Your task to perform on an android device: change notification settings in the gmail app Image 0: 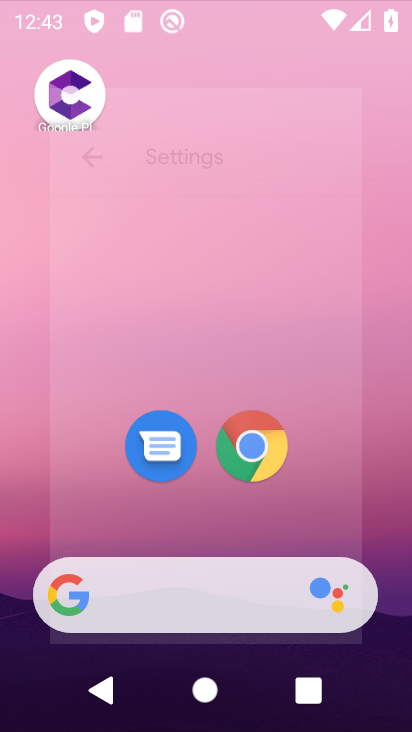
Step 0: drag from (265, 550) to (271, 101)
Your task to perform on an android device: change notification settings in the gmail app Image 1: 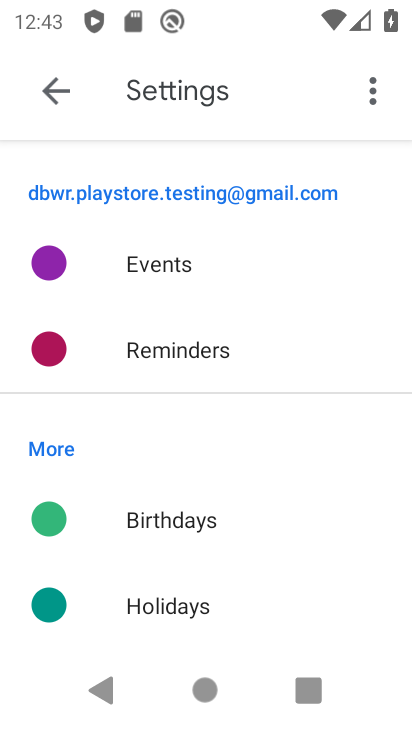
Step 1: press home button
Your task to perform on an android device: change notification settings in the gmail app Image 2: 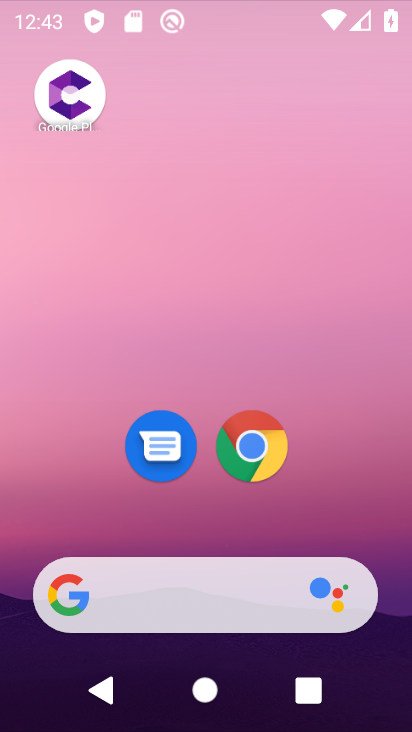
Step 2: drag from (230, 622) to (200, 77)
Your task to perform on an android device: change notification settings in the gmail app Image 3: 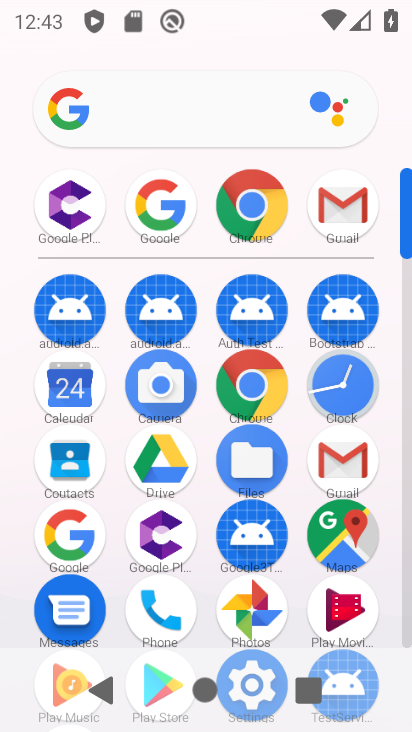
Step 3: click (346, 464)
Your task to perform on an android device: change notification settings in the gmail app Image 4: 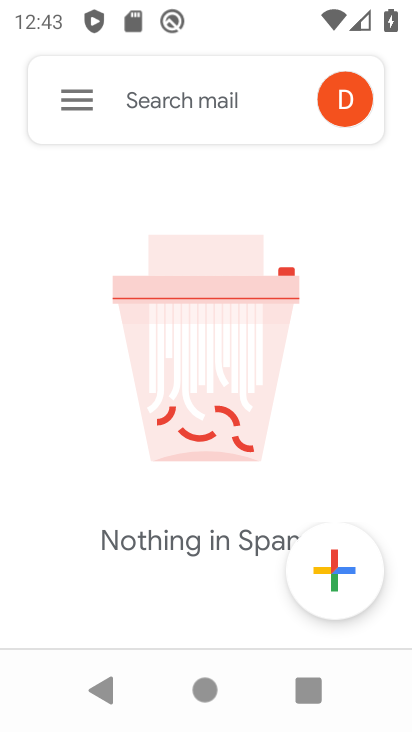
Step 4: click (74, 101)
Your task to perform on an android device: change notification settings in the gmail app Image 5: 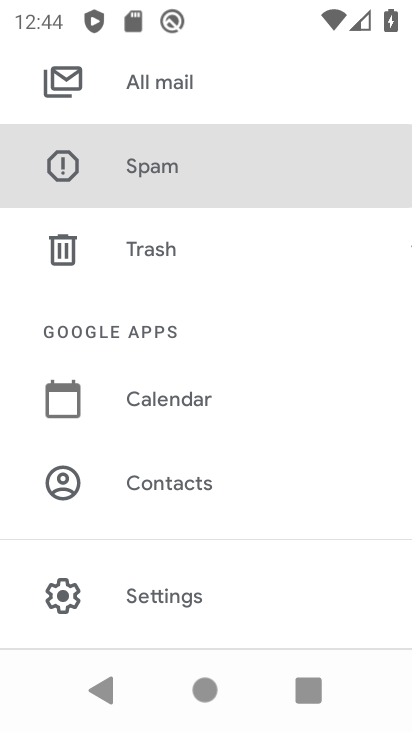
Step 5: drag from (164, 537) to (154, 200)
Your task to perform on an android device: change notification settings in the gmail app Image 6: 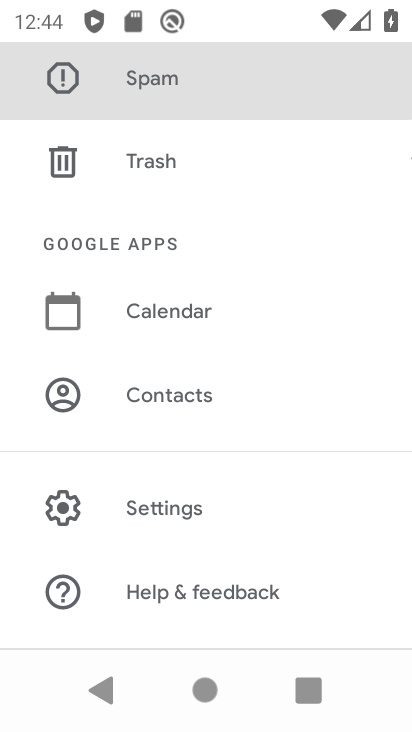
Step 6: click (128, 506)
Your task to perform on an android device: change notification settings in the gmail app Image 7: 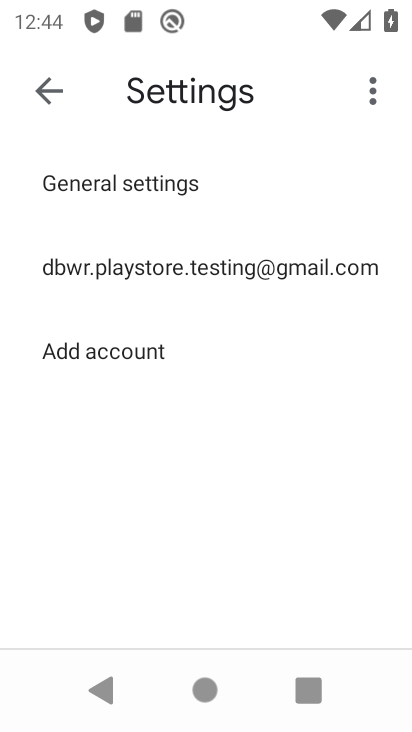
Step 7: click (164, 175)
Your task to perform on an android device: change notification settings in the gmail app Image 8: 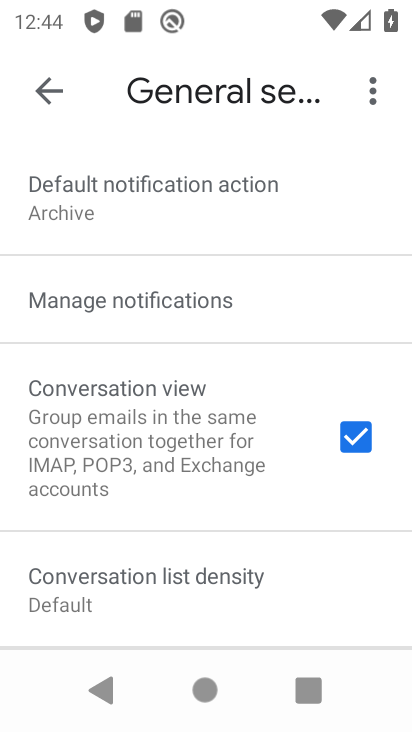
Step 8: click (163, 299)
Your task to perform on an android device: change notification settings in the gmail app Image 9: 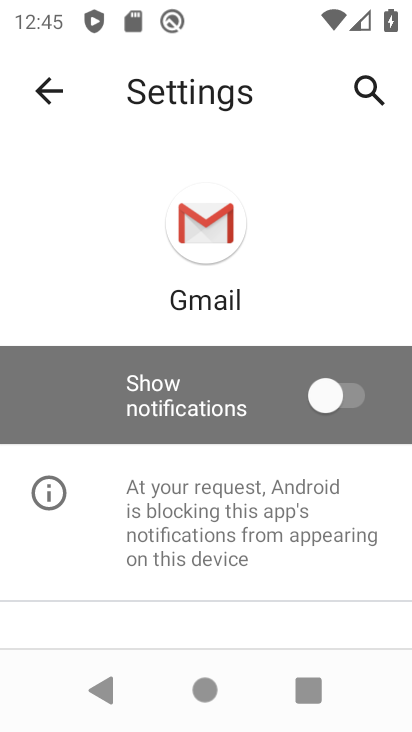
Step 9: click (256, 440)
Your task to perform on an android device: change notification settings in the gmail app Image 10: 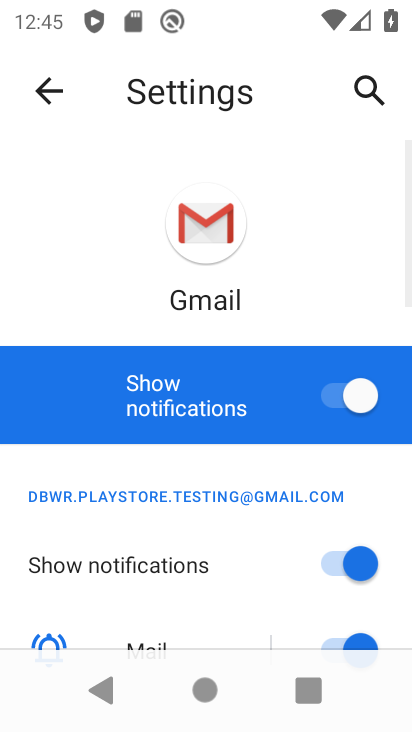
Step 10: task complete